Your task to perform on an android device: See recent photos Image 0: 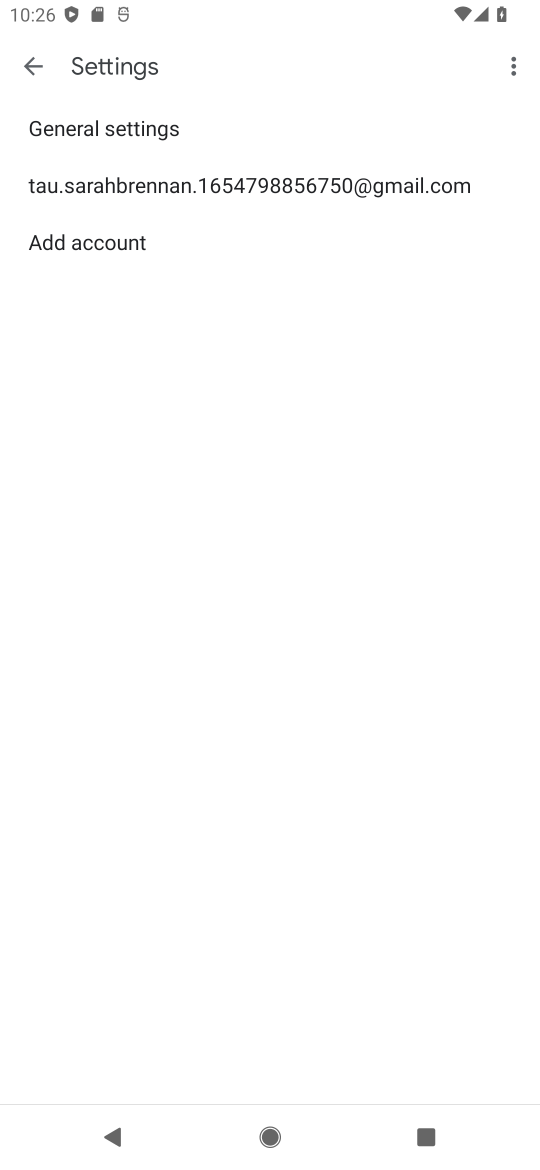
Step 0: press home button
Your task to perform on an android device: See recent photos Image 1: 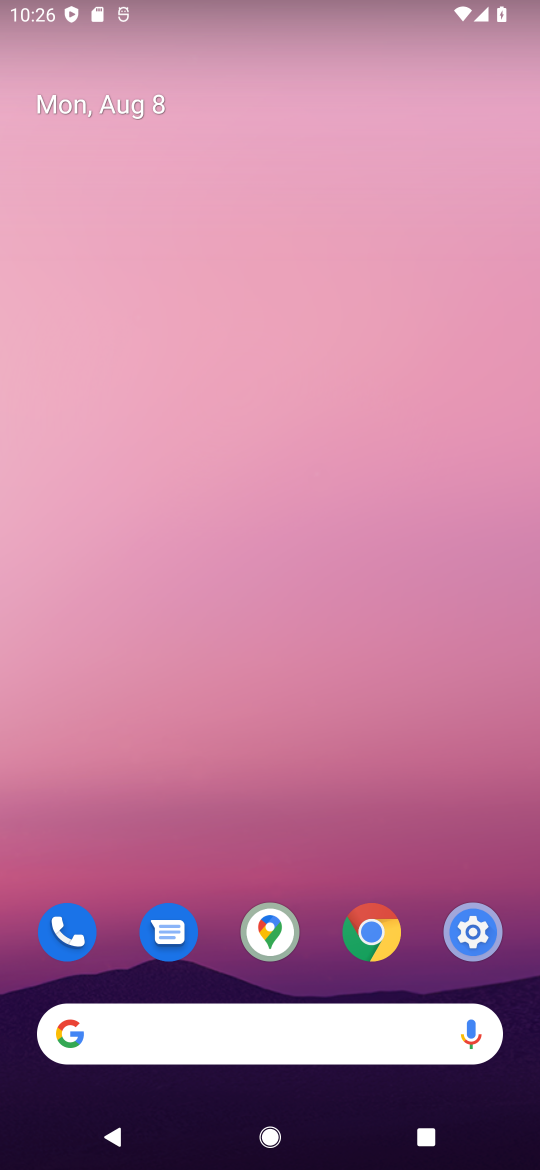
Step 1: drag from (264, 856) to (319, 140)
Your task to perform on an android device: See recent photos Image 2: 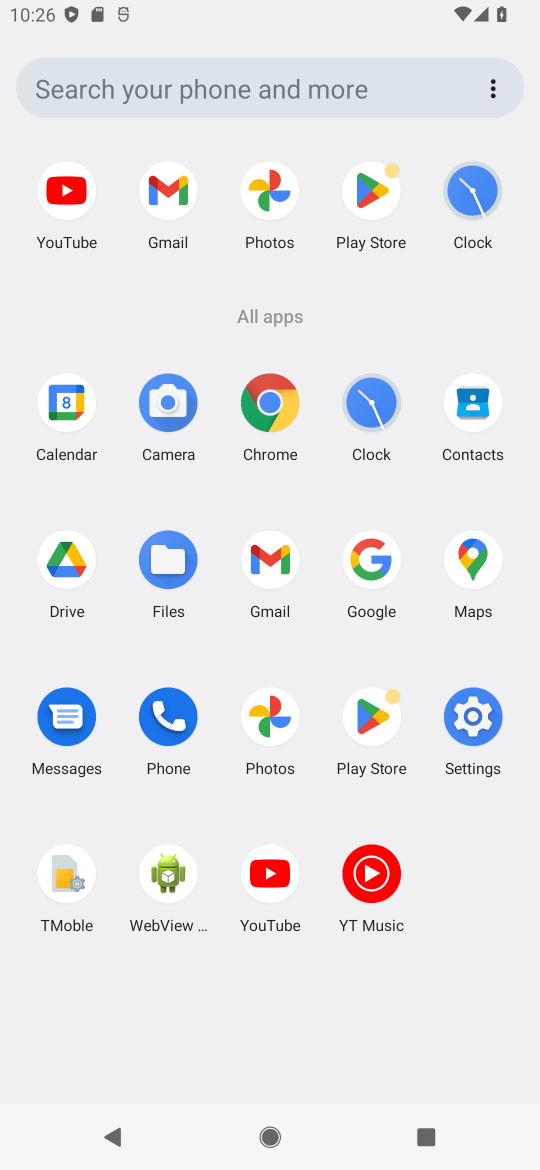
Step 2: click (275, 180)
Your task to perform on an android device: See recent photos Image 3: 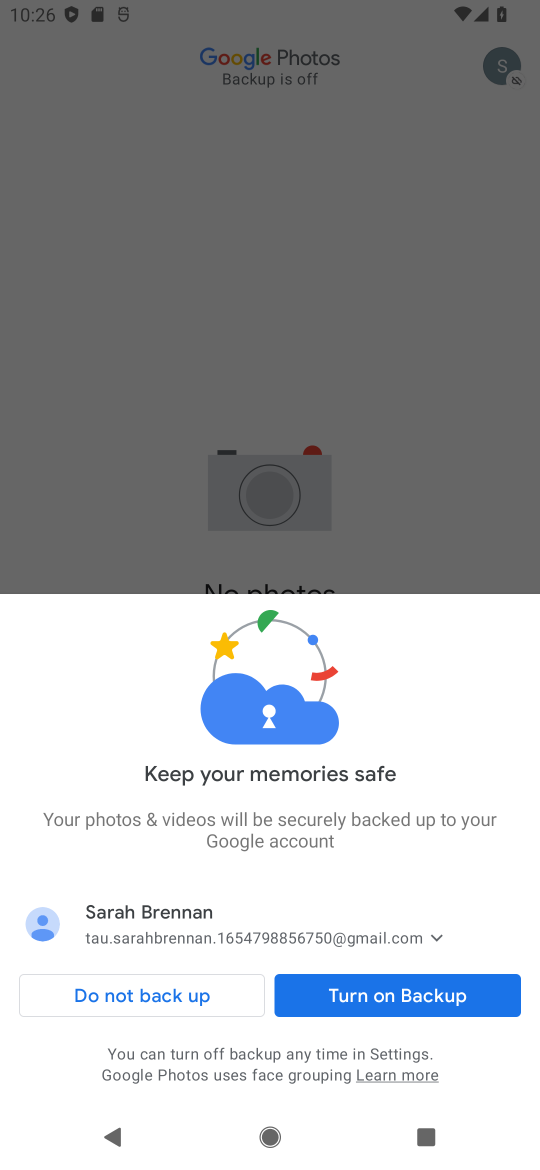
Step 3: task complete